Your task to perform on an android device: set the stopwatch Image 0: 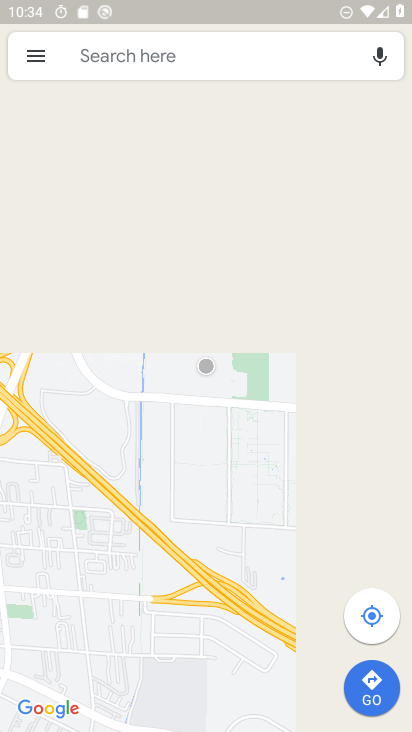
Step 0: press home button
Your task to perform on an android device: set the stopwatch Image 1: 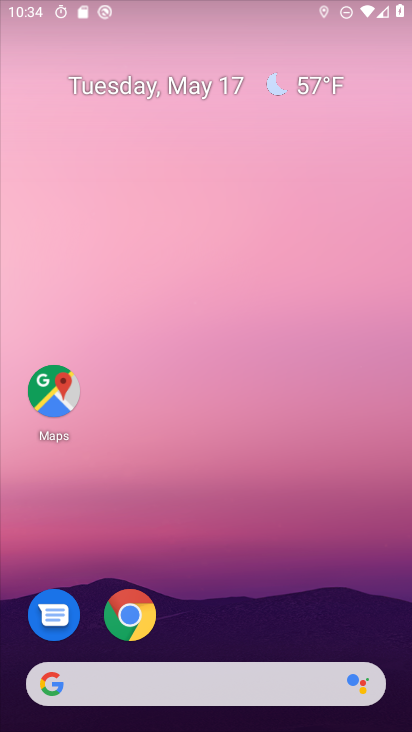
Step 1: drag from (243, 491) to (197, 3)
Your task to perform on an android device: set the stopwatch Image 2: 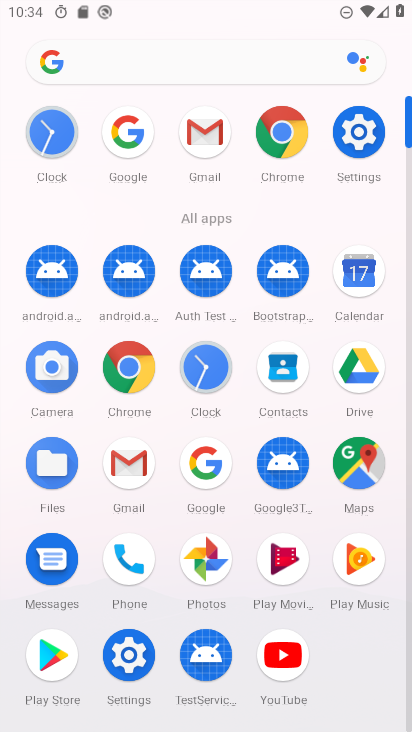
Step 2: click (60, 111)
Your task to perform on an android device: set the stopwatch Image 3: 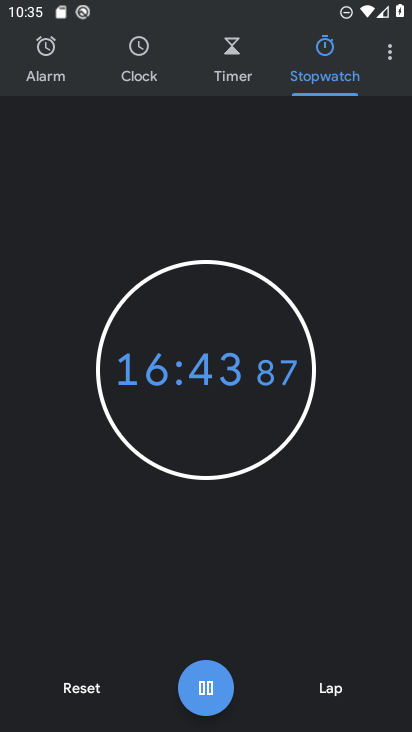
Step 3: click (87, 683)
Your task to perform on an android device: set the stopwatch Image 4: 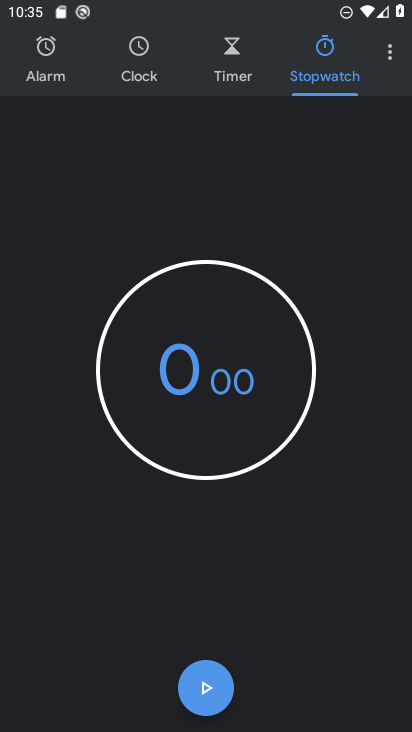
Step 4: click (206, 692)
Your task to perform on an android device: set the stopwatch Image 5: 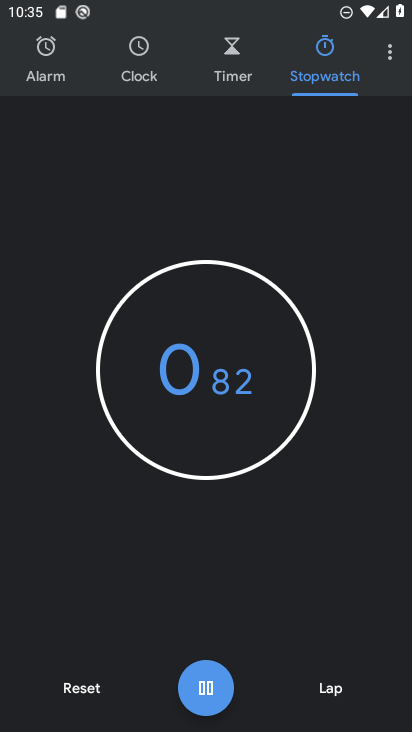
Step 5: task complete